Your task to perform on an android device: change the upload size in google photos Image 0: 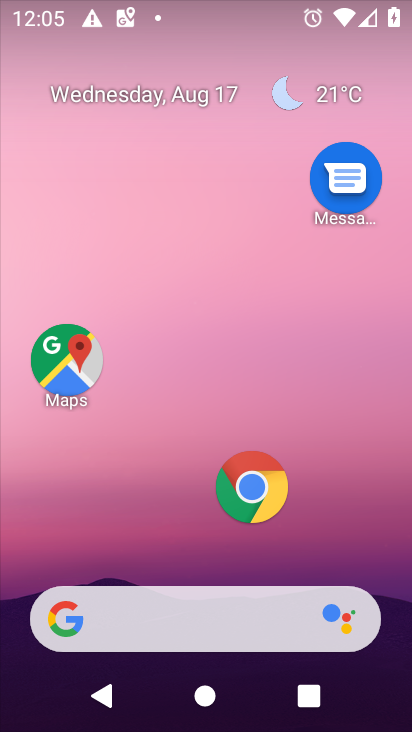
Step 0: drag from (203, 583) to (245, 28)
Your task to perform on an android device: change the upload size in google photos Image 1: 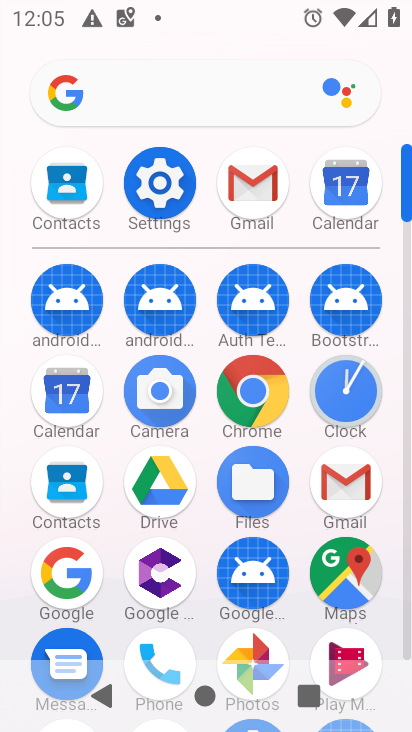
Step 1: click (245, 634)
Your task to perform on an android device: change the upload size in google photos Image 2: 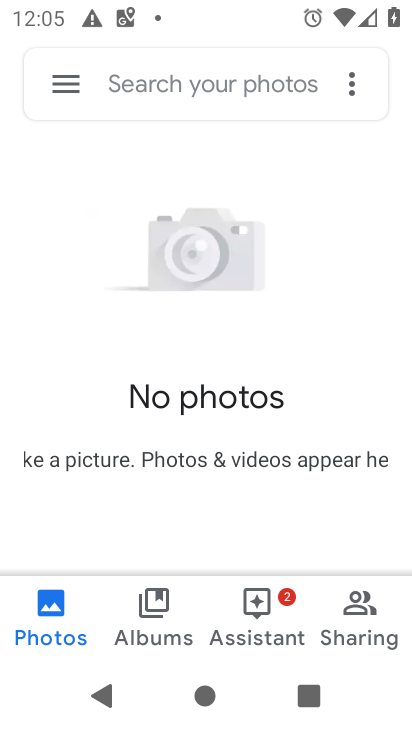
Step 2: click (64, 89)
Your task to perform on an android device: change the upload size in google photos Image 3: 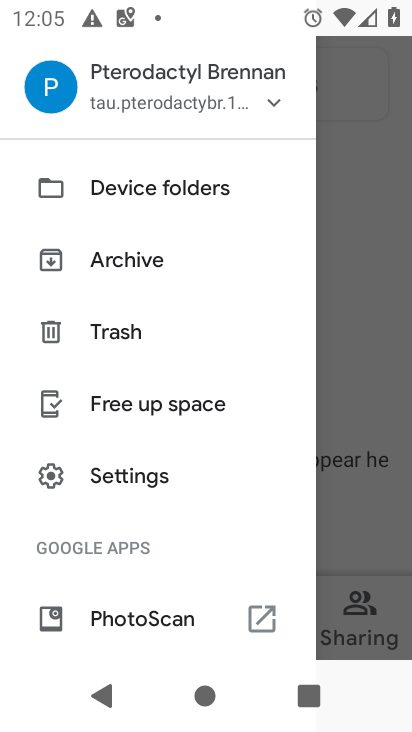
Step 3: click (131, 456)
Your task to perform on an android device: change the upload size in google photos Image 4: 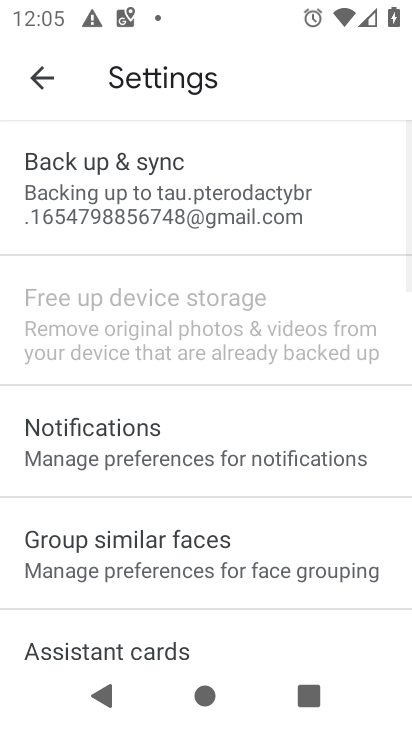
Step 4: click (157, 175)
Your task to perform on an android device: change the upload size in google photos Image 5: 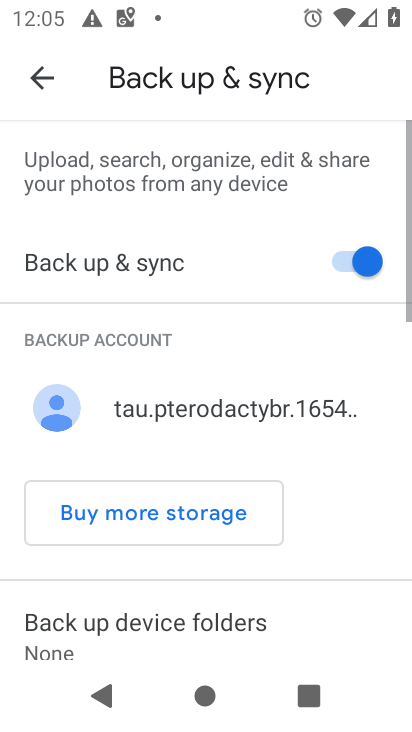
Step 5: drag from (169, 568) to (236, 100)
Your task to perform on an android device: change the upload size in google photos Image 6: 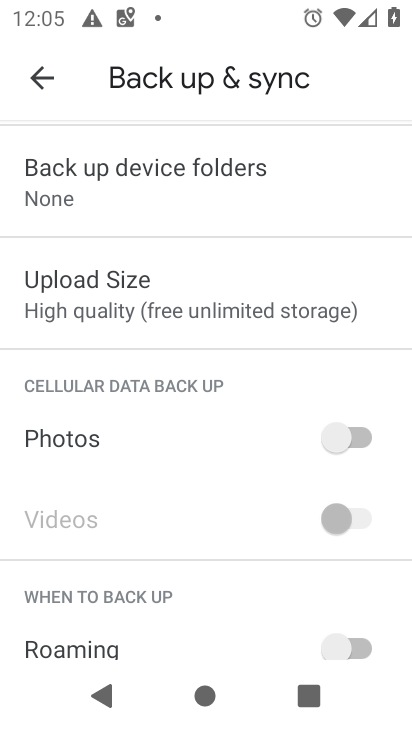
Step 6: click (68, 295)
Your task to perform on an android device: change the upload size in google photos Image 7: 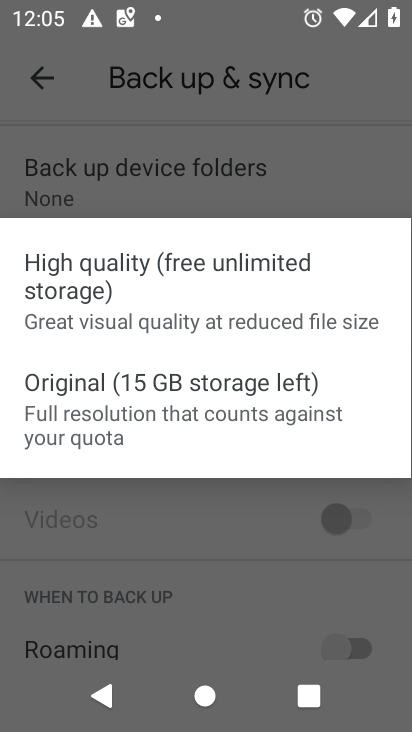
Step 7: click (107, 372)
Your task to perform on an android device: change the upload size in google photos Image 8: 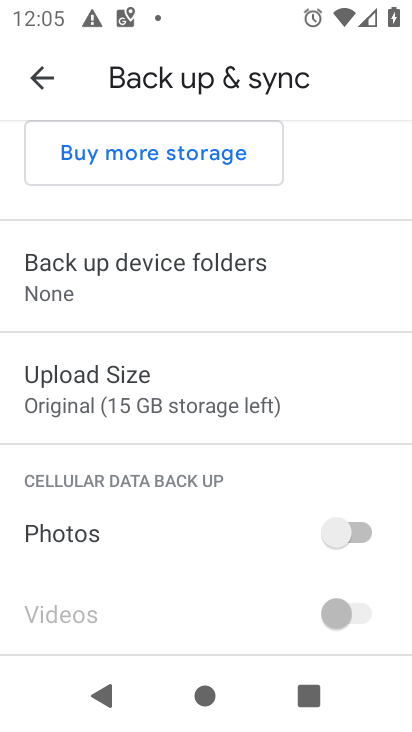
Step 8: task complete